Your task to perform on an android device: turn on bluetooth scan Image 0: 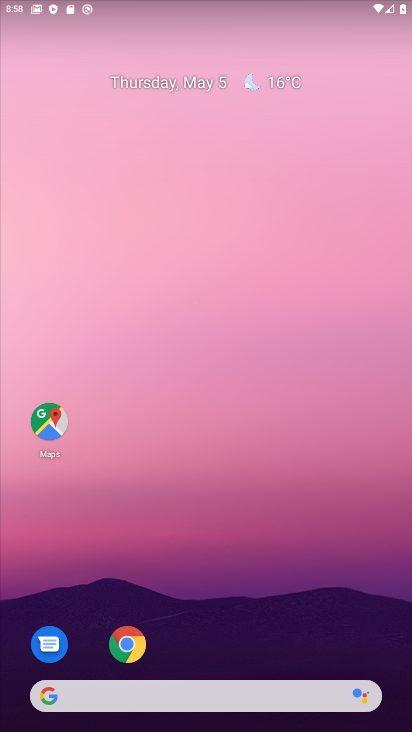
Step 0: drag from (374, 640) to (380, 186)
Your task to perform on an android device: turn on bluetooth scan Image 1: 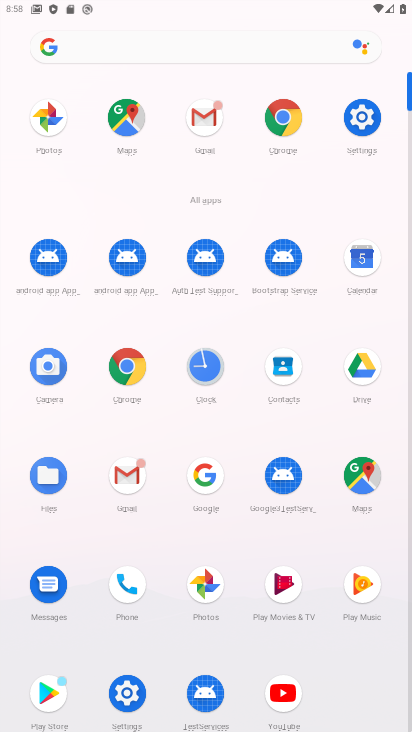
Step 1: click (360, 128)
Your task to perform on an android device: turn on bluetooth scan Image 2: 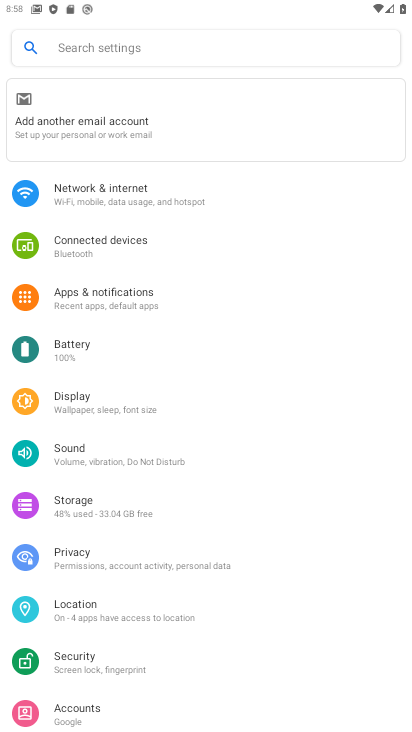
Step 2: click (104, 611)
Your task to perform on an android device: turn on bluetooth scan Image 3: 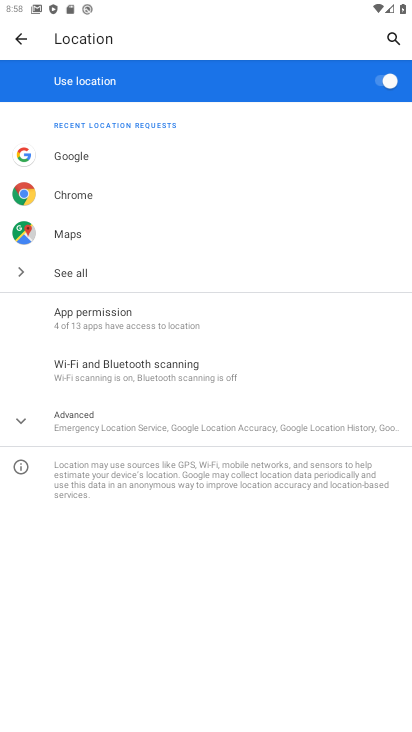
Step 3: click (212, 379)
Your task to perform on an android device: turn on bluetooth scan Image 4: 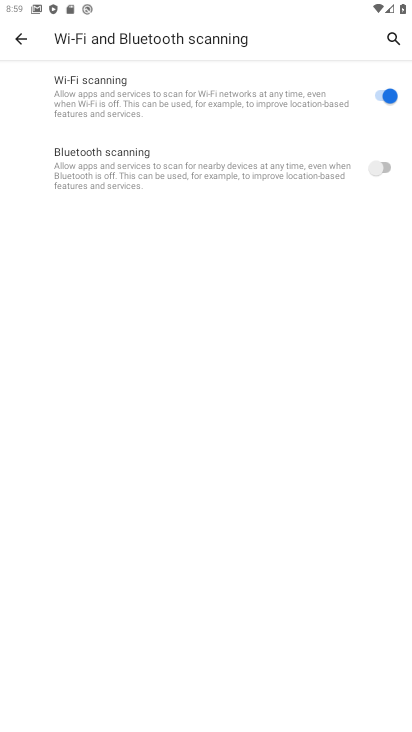
Step 4: click (388, 162)
Your task to perform on an android device: turn on bluetooth scan Image 5: 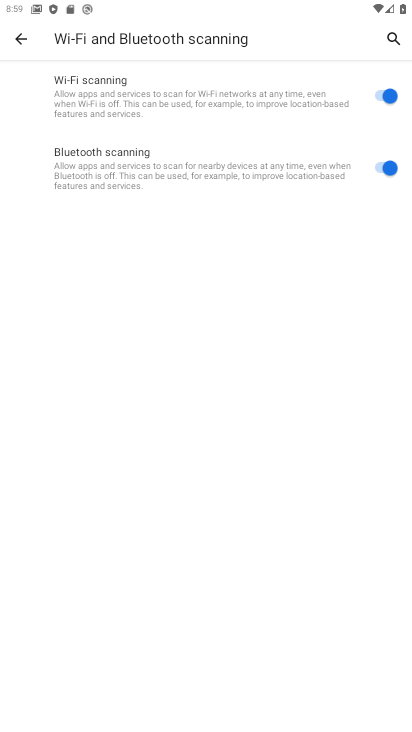
Step 5: task complete